Your task to perform on an android device: turn on the 12-hour format for clock Image 0: 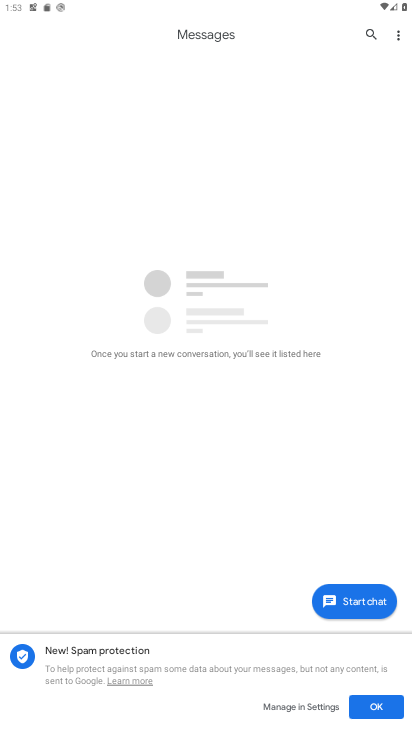
Step 0: drag from (241, 517) to (266, 334)
Your task to perform on an android device: turn on the 12-hour format for clock Image 1: 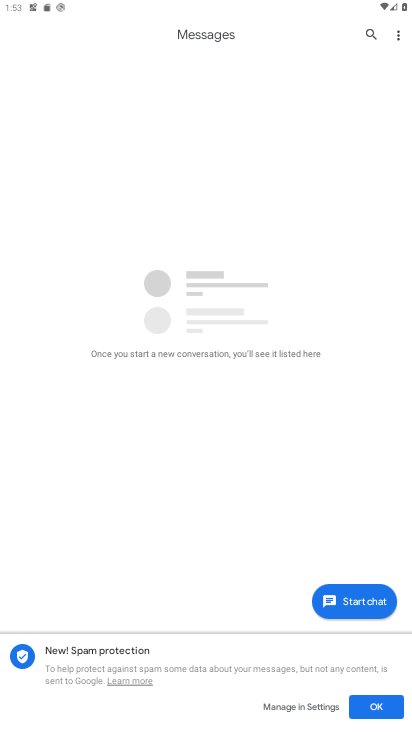
Step 1: press home button
Your task to perform on an android device: turn on the 12-hour format for clock Image 2: 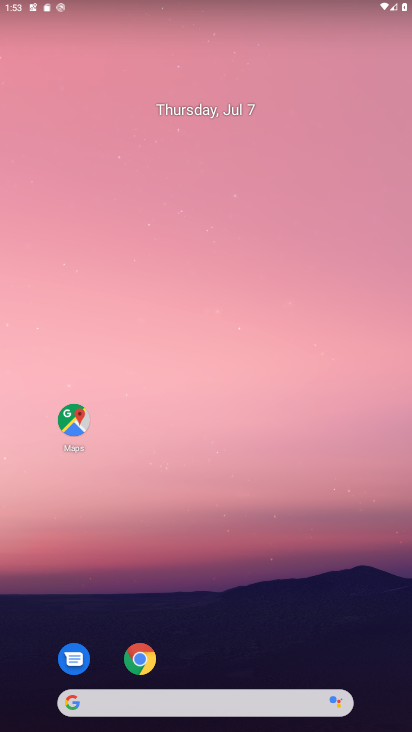
Step 2: drag from (191, 658) to (244, 113)
Your task to perform on an android device: turn on the 12-hour format for clock Image 3: 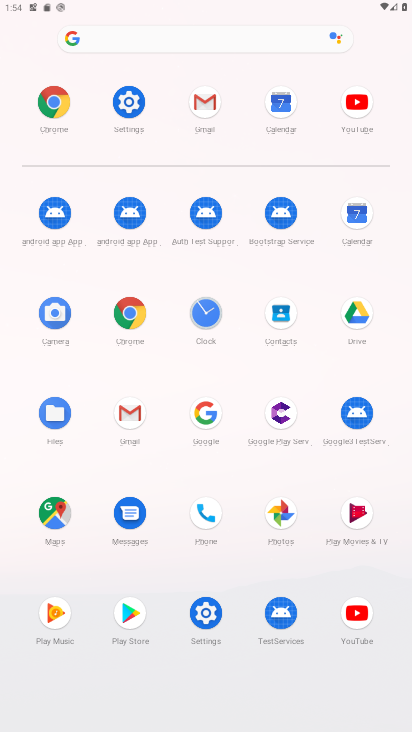
Step 3: click (196, 312)
Your task to perform on an android device: turn on the 12-hour format for clock Image 4: 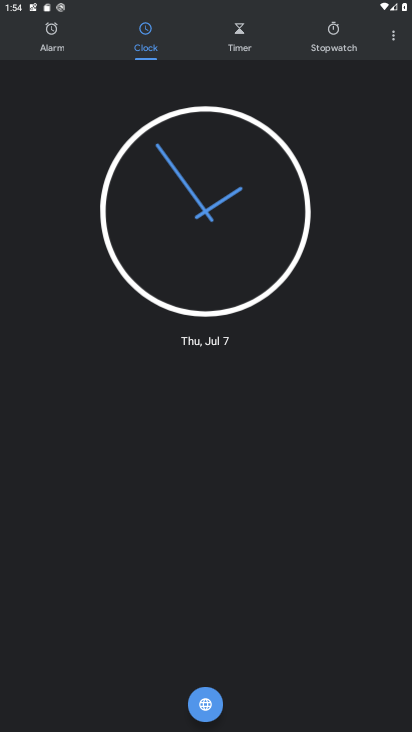
Step 4: click (391, 34)
Your task to perform on an android device: turn on the 12-hour format for clock Image 5: 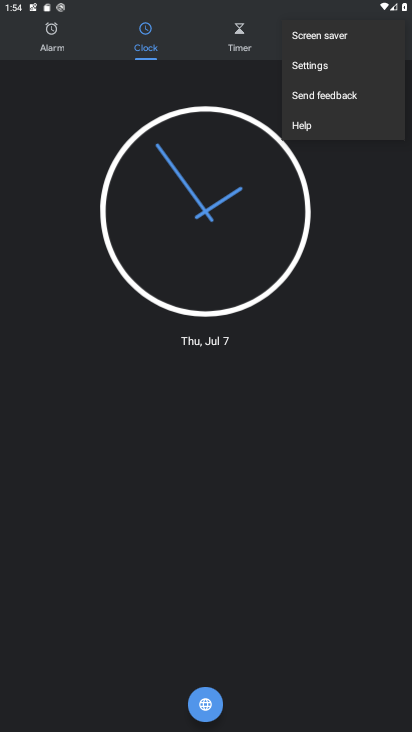
Step 5: click (323, 65)
Your task to perform on an android device: turn on the 12-hour format for clock Image 6: 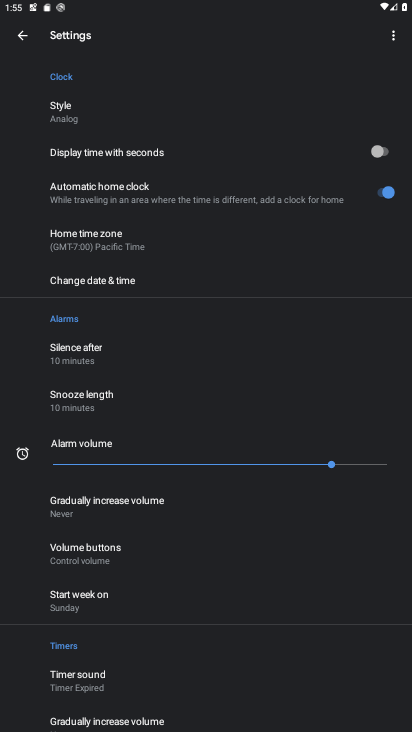
Step 6: click (111, 281)
Your task to perform on an android device: turn on the 12-hour format for clock Image 7: 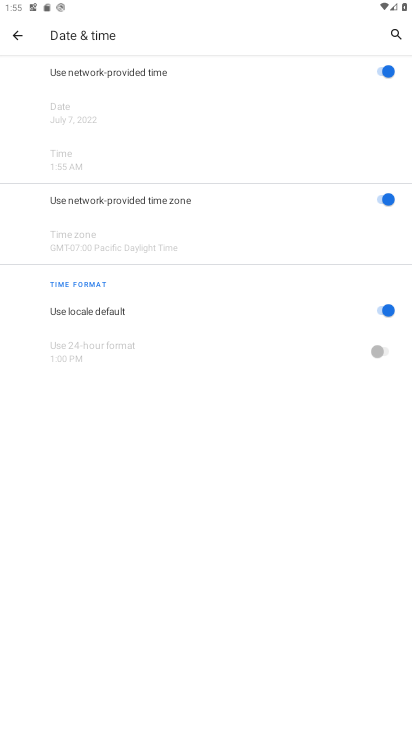
Step 7: click (380, 343)
Your task to perform on an android device: turn on the 12-hour format for clock Image 8: 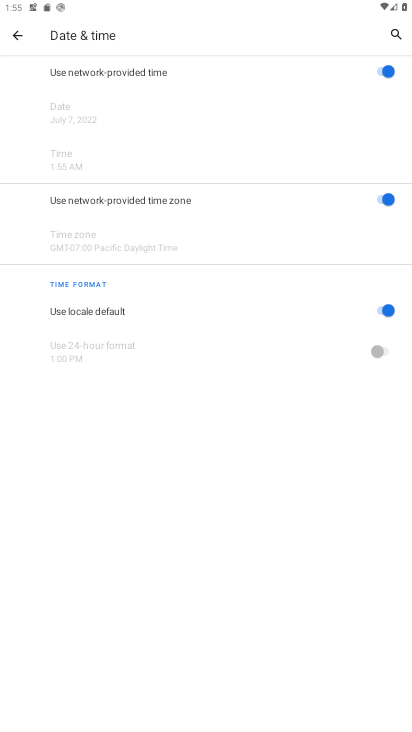
Step 8: task complete